Your task to perform on an android device: turn off improve location accuracy Image 0: 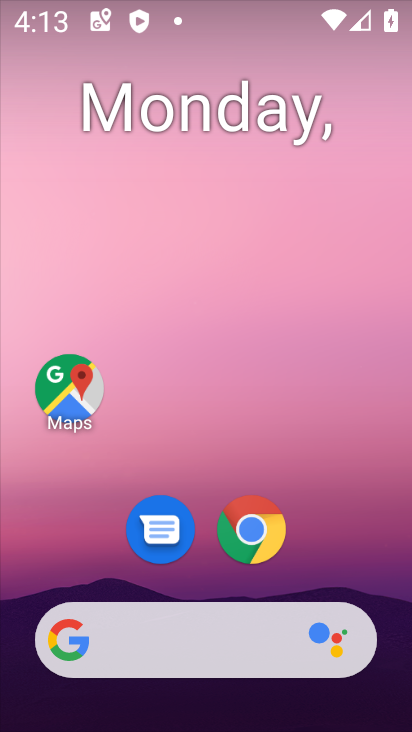
Step 0: drag from (231, 709) to (268, 215)
Your task to perform on an android device: turn off improve location accuracy Image 1: 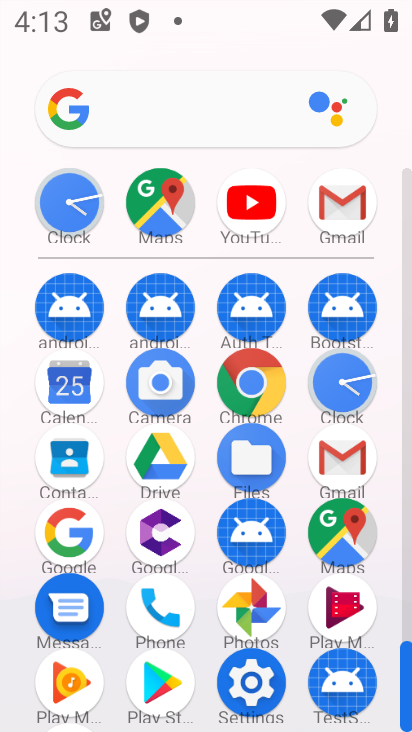
Step 1: click (249, 681)
Your task to perform on an android device: turn off improve location accuracy Image 2: 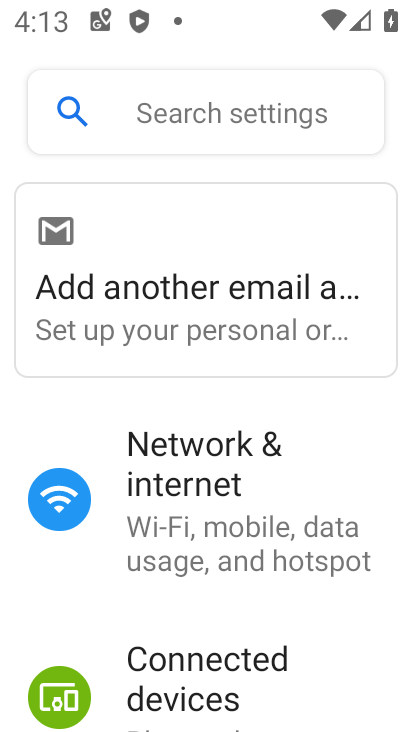
Step 2: drag from (198, 692) to (201, 325)
Your task to perform on an android device: turn off improve location accuracy Image 3: 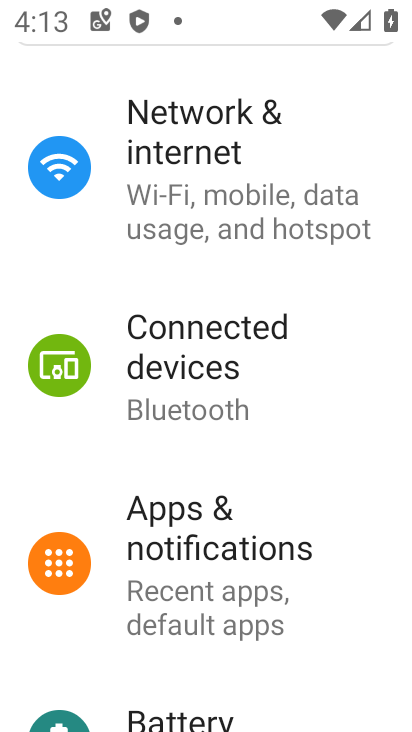
Step 3: drag from (211, 687) to (243, 187)
Your task to perform on an android device: turn off improve location accuracy Image 4: 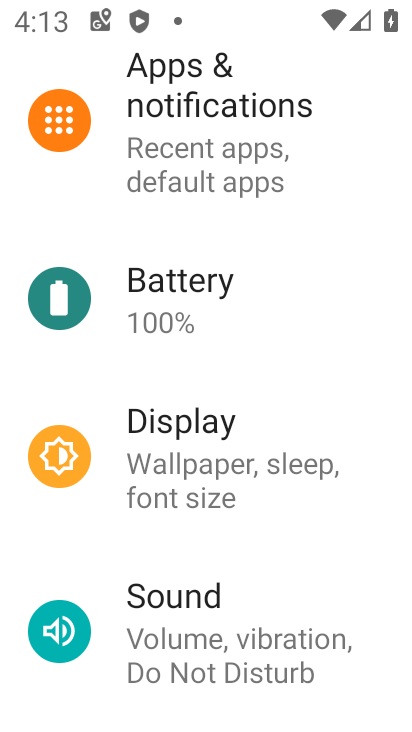
Step 4: drag from (202, 700) to (230, 275)
Your task to perform on an android device: turn off improve location accuracy Image 5: 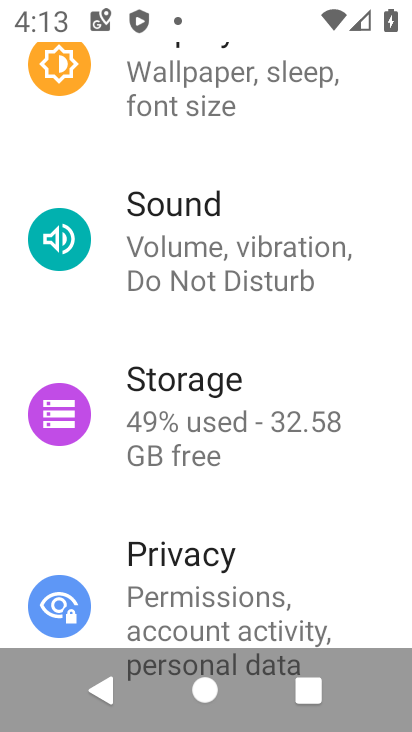
Step 5: drag from (216, 626) to (244, 218)
Your task to perform on an android device: turn off improve location accuracy Image 6: 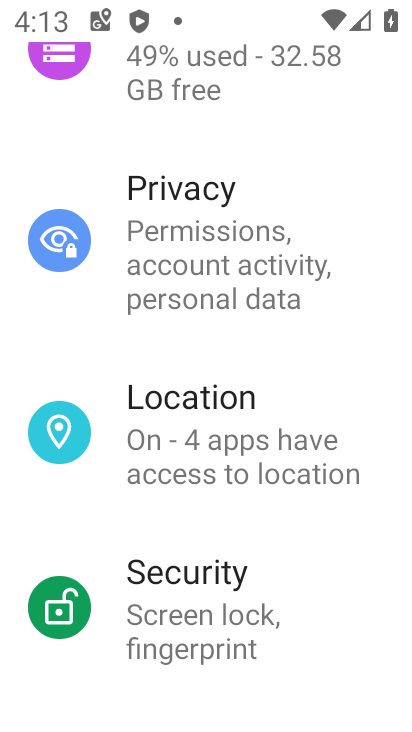
Step 6: click (192, 467)
Your task to perform on an android device: turn off improve location accuracy Image 7: 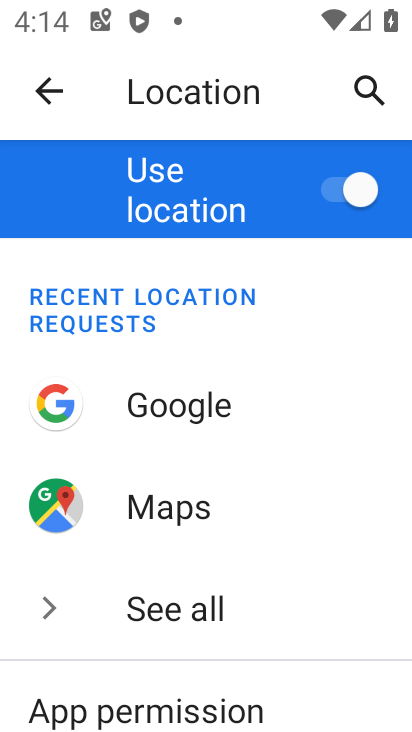
Step 7: drag from (247, 691) to (249, 250)
Your task to perform on an android device: turn off improve location accuracy Image 8: 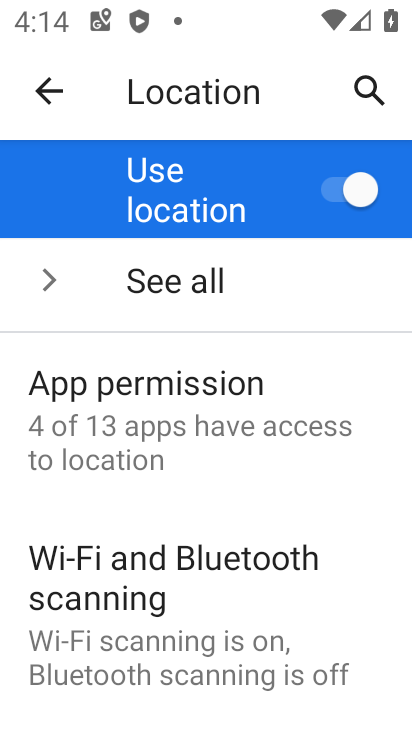
Step 8: drag from (208, 703) to (221, 313)
Your task to perform on an android device: turn off improve location accuracy Image 9: 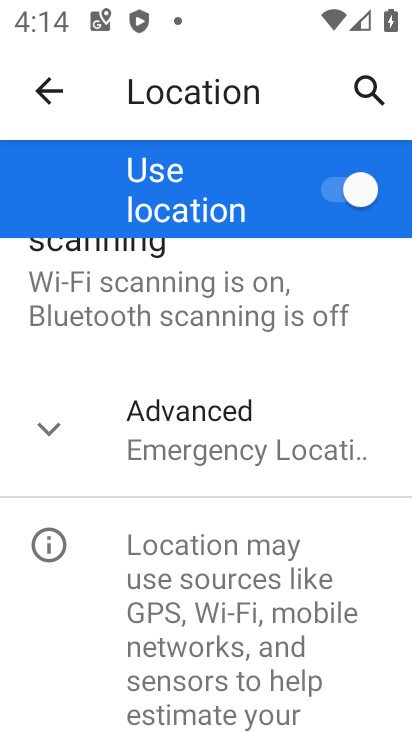
Step 9: click (185, 434)
Your task to perform on an android device: turn off improve location accuracy Image 10: 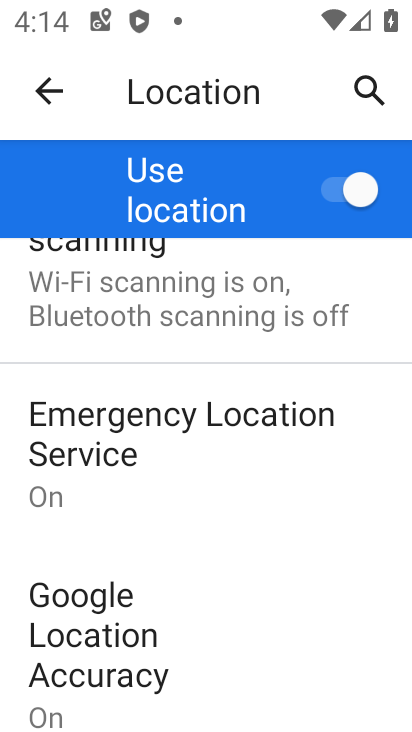
Step 10: click (119, 649)
Your task to perform on an android device: turn off improve location accuracy Image 11: 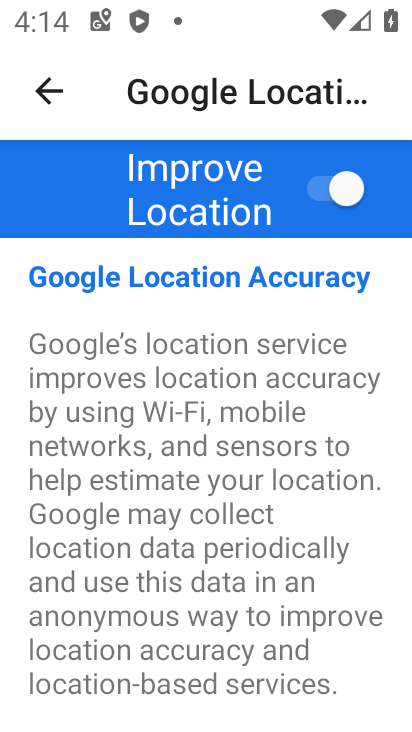
Step 11: click (324, 191)
Your task to perform on an android device: turn off improve location accuracy Image 12: 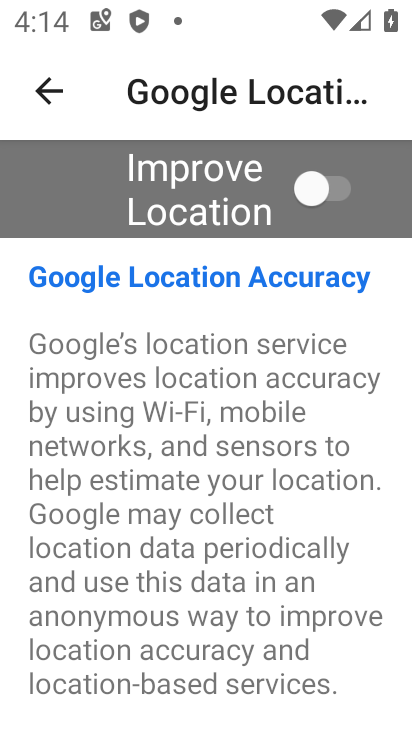
Step 12: task complete